Your task to perform on an android device: Go to display settings Image 0: 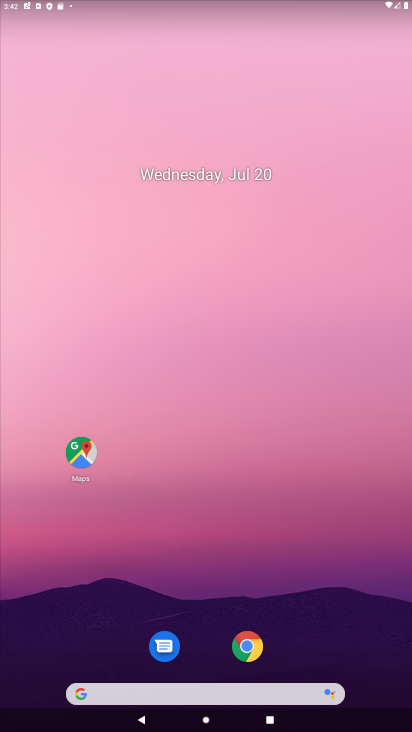
Step 0: drag from (196, 535) to (187, 169)
Your task to perform on an android device: Go to display settings Image 1: 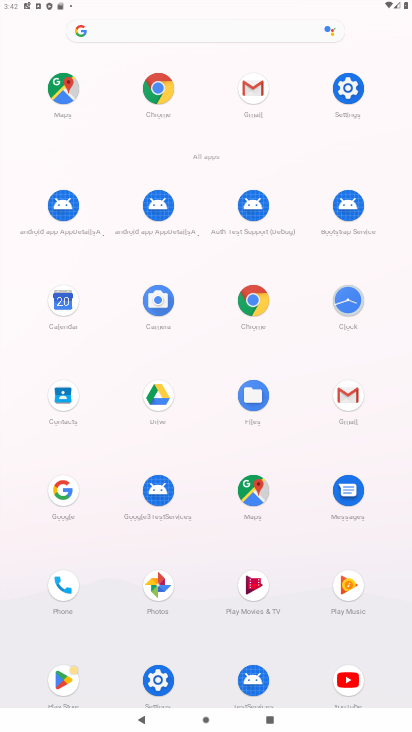
Step 1: click (351, 85)
Your task to perform on an android device: Go to display settings Image 2: 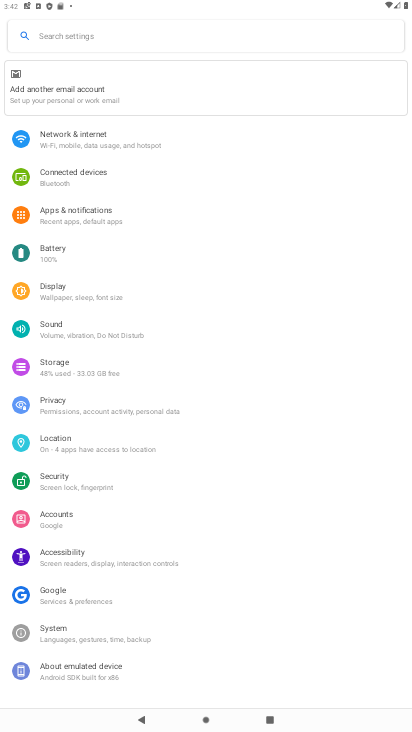
Step 2: click (111, 296)
Your task to perform on an android device: Go to display settings Image 3: 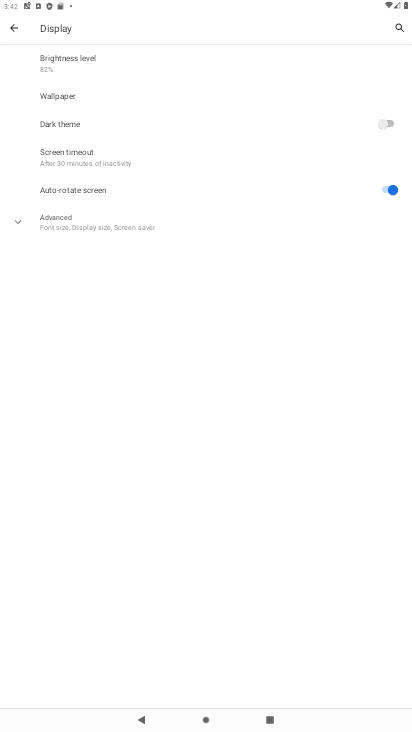
Step 3: task complete